Your task to perform on an android device: Set the phone to "Do not disturb". Image 0: 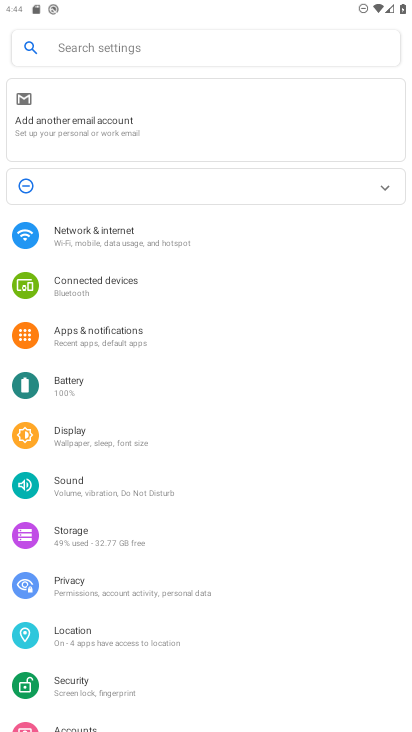
Step 0: press home button
Your task to perform on an android device: Set the phone to "Do not disturb". Image 1: 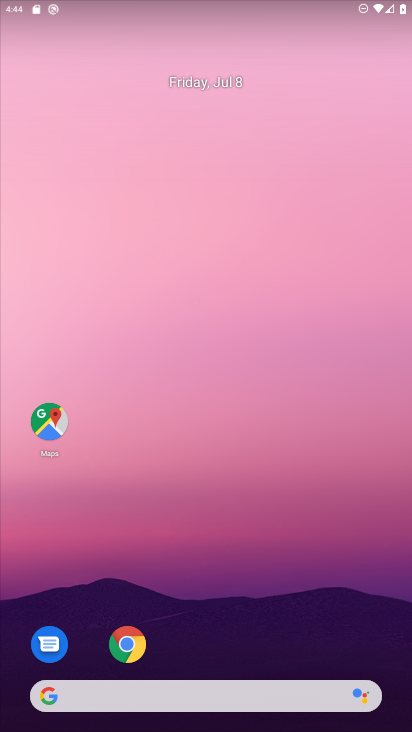
Step 1: task complete